Your task to perform on an android device: Open the map Image 0: 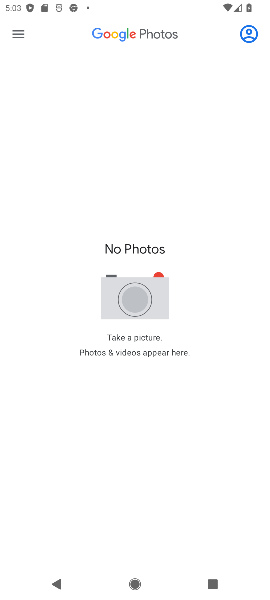
Step 0: press home button
Your task to perform on an android device: Open the map Image 1: 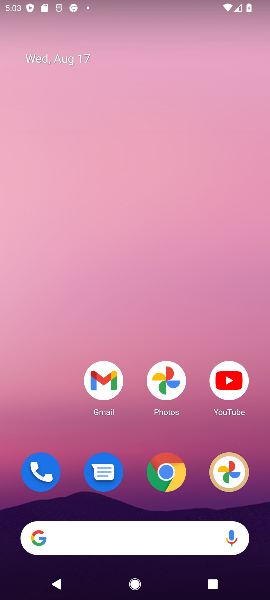
Step 1: drag from (154, 422) to (155, 96)
Your task to perform on an android device: Open the map Image 2: 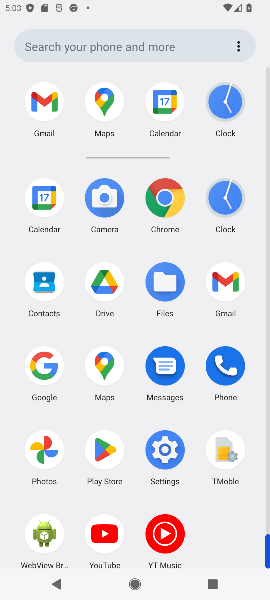
Step 2: click (96, 120)
Your task to perform on an android device: Open the map Image 3: 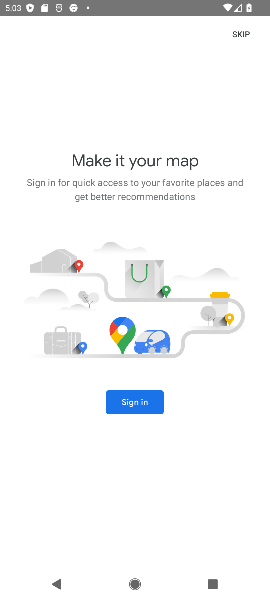
Step 3: task complete